Your task to perform on an android device: turn on location history Image 0: 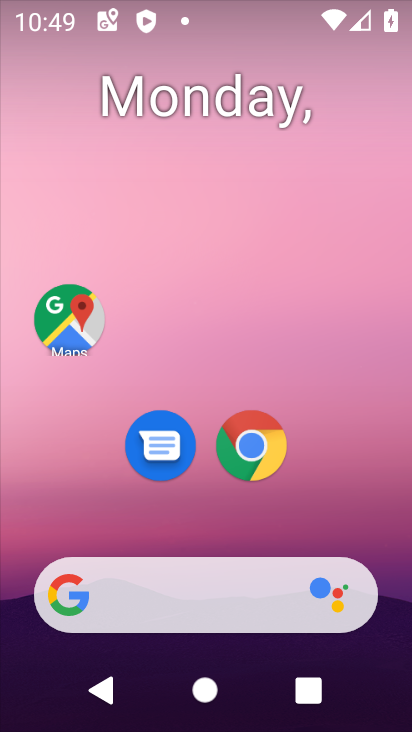
Step 0: drag from (183, 529) to (267, 91)
Your task to perform on an android device: turn on location history Image 1: 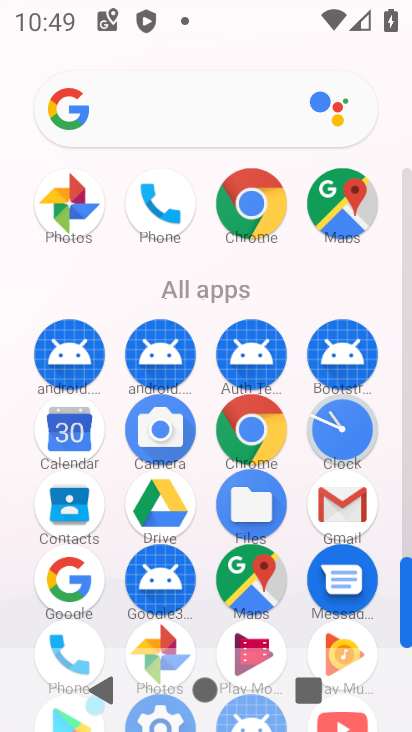
Step 1: drag from (214, 617) to (307, 165)
Your task to perform on an android device: turn on location history Image 2: 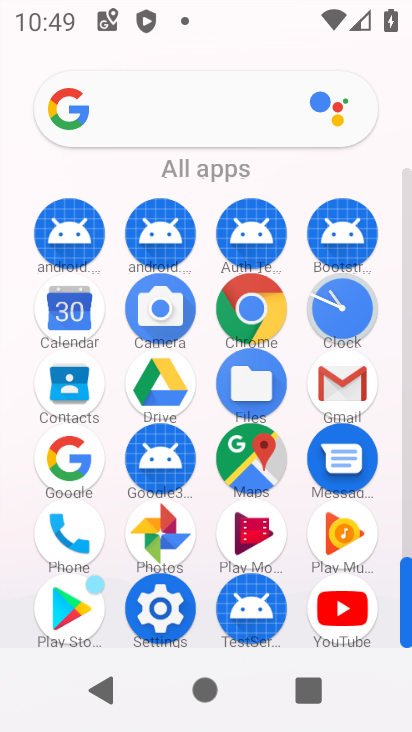
Step 2: click (155, 592)
Your task to perform on an android device: turn on location history Image 3: 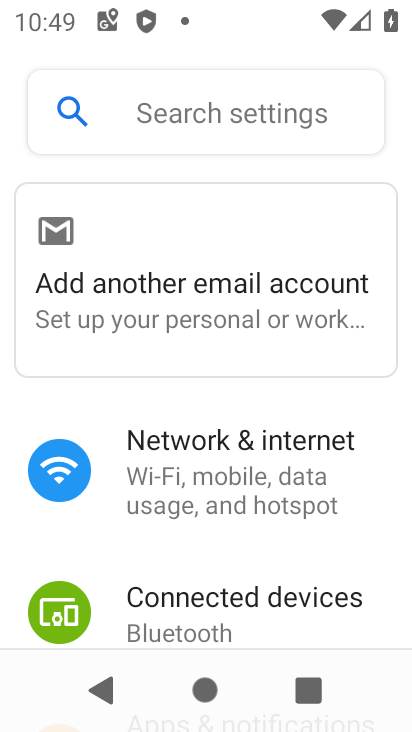
Step 3: drag from (217, 529) to (359, 57)
Your task to perform on an android device: turn on location history Image 4: 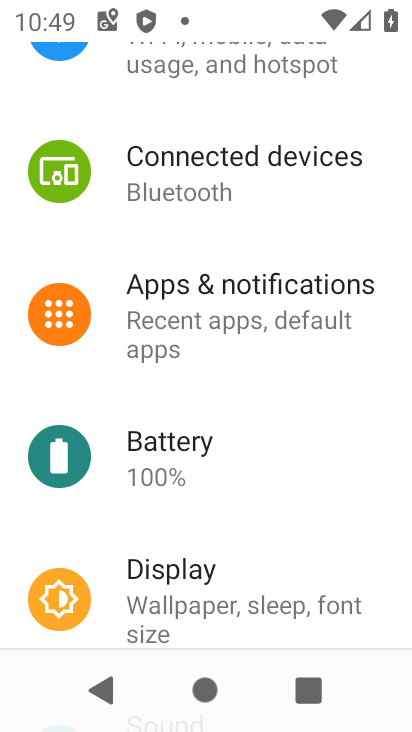
Step 4: drag from (235, 556) to (306, 63)
Your task to perform on an android device: turn on location history Image 5: 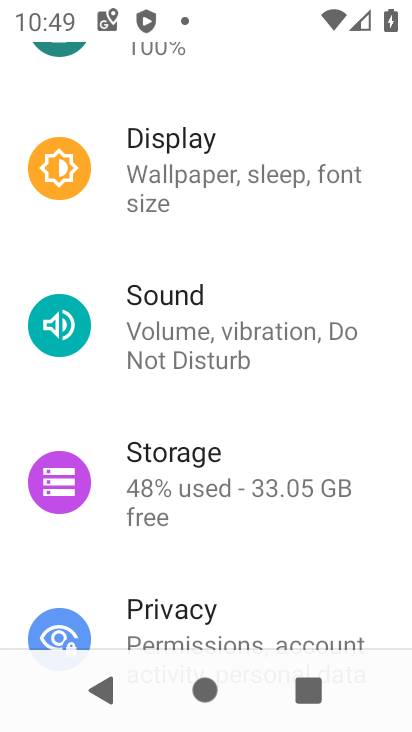
Step 5: drag from (193, 582) to (265, 140)
Your task to perform on an android device: turn on location history Image 6: 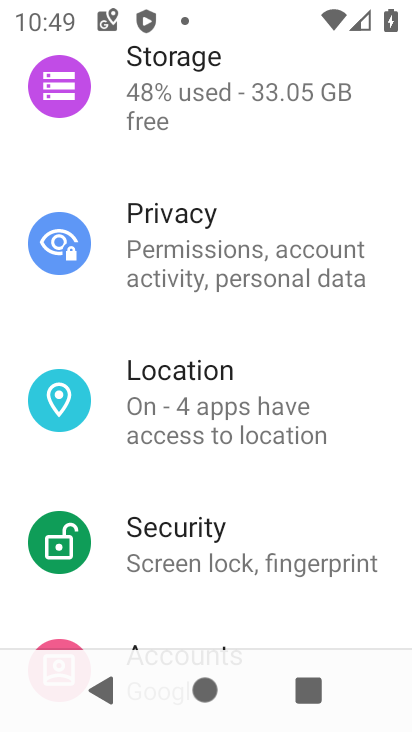
Step 6: click (197, 398)
Your task to perform on an android device: turn on location history Image 7: 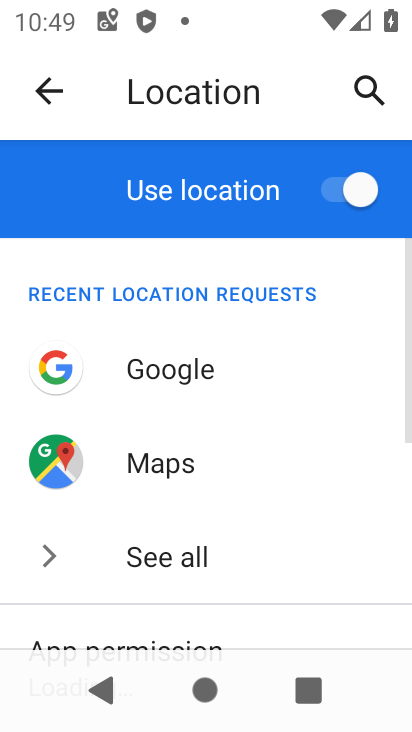
Step 7: drag from (210, 532) to (341, 18)
Your task to perform on an android device: turn on location history Image 8: 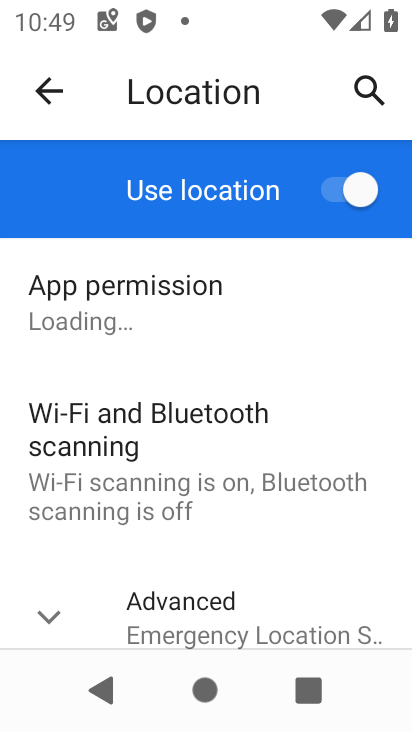
Step 8: drag from (186, 526) to (323, 56)
Your task to perform on an android device: turn on location history Image 9: 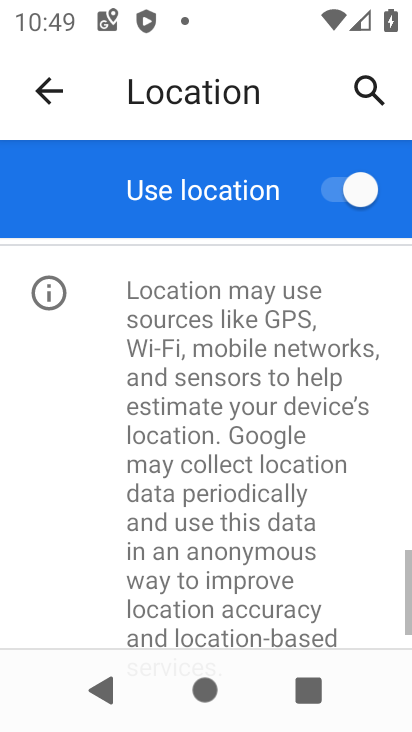
Step 9: drag from (194, 300) to (195, 619)
Your task to perform on an android device: turn on location history Image 10: 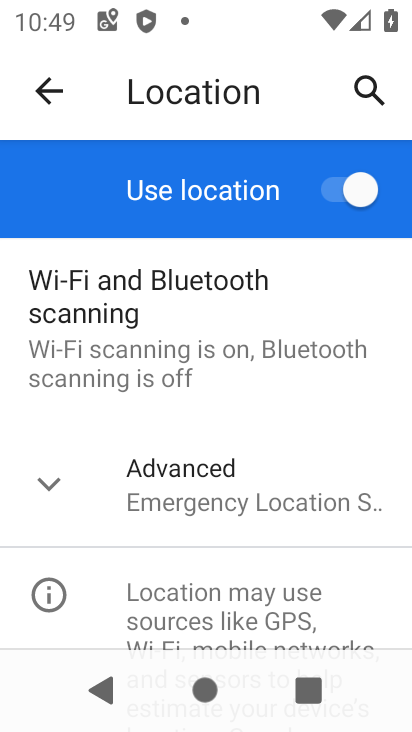
Step 10: click (182, 498)
Your task to perform on an android device: turn on location history Image 11: 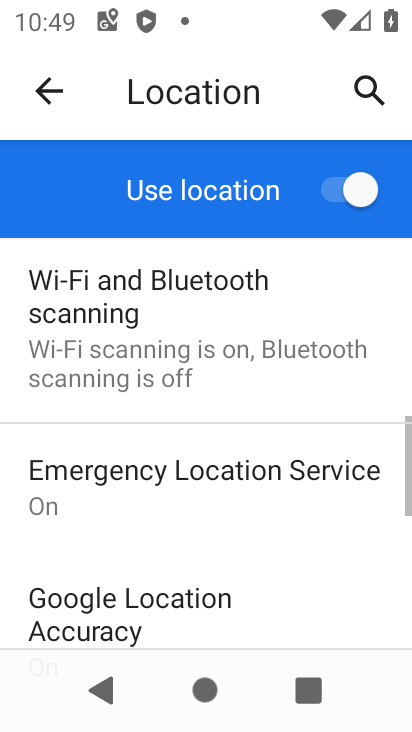
Step 11: drag from (216, 605) to (319, 249)
Your task to perform on an android device: turn on location history Image 12: 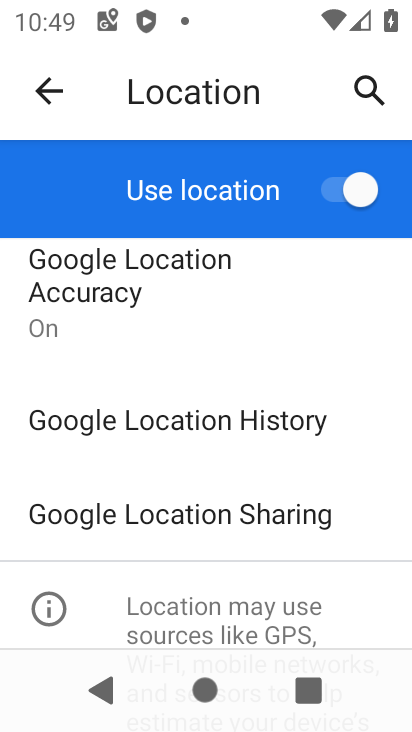
Step 12: click (222, 422)
Your task to perform on an android device: turn on location history Image 13: 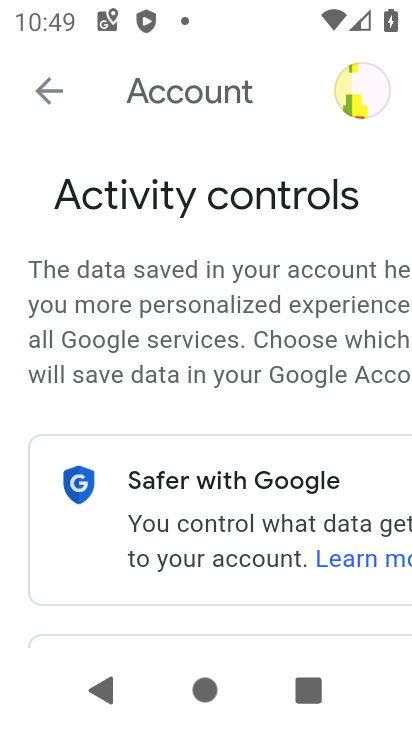
Step 13: drag from (219, 479) to (249, 65)
Your task to perform on an android device: turn on location history Image 14: 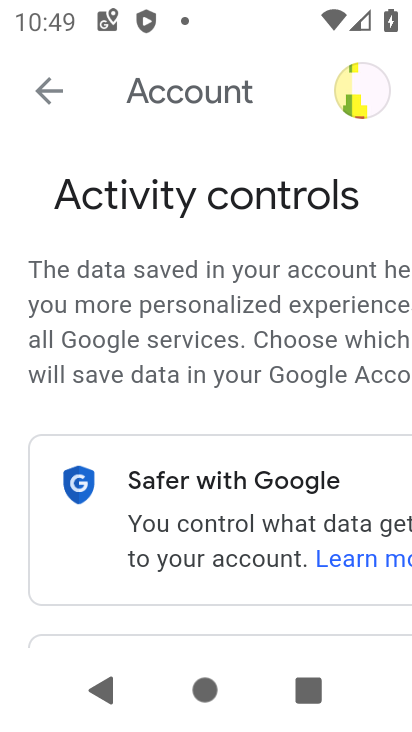
Step 14: drag from (287, 531) to (195, 151)
Your task to perform on an android device: turn on location history Image 15: 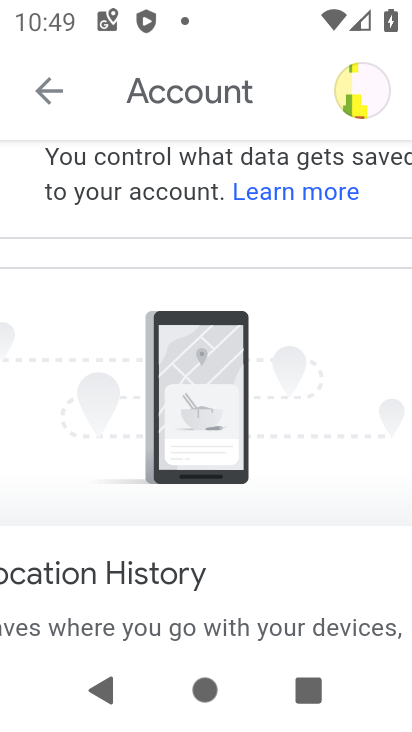
Step 15: drag from (209, 594) to (349, 152)
Your task to perform on an android device: turn on location history Image 16: 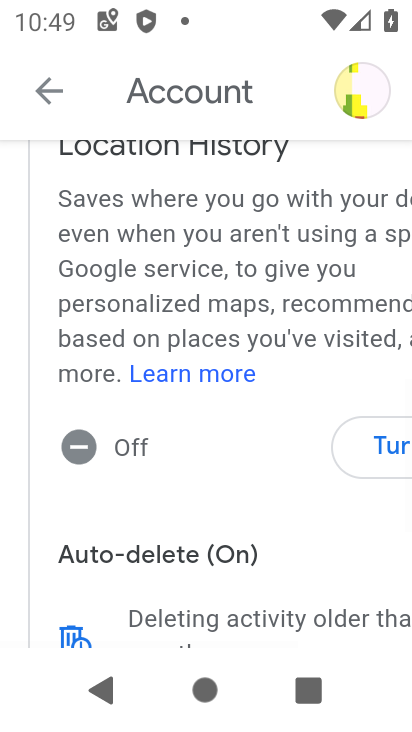
Step 16: drag from (294, 495) to (213, 260)
Your task to perform on an android device: turn on location history Image 17: 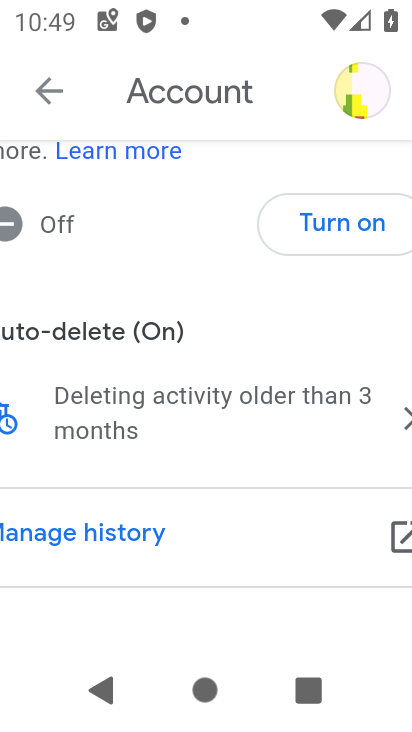
Step 17: click (324, 224)
Your task to perform on an android device: turn on location history Image 18: 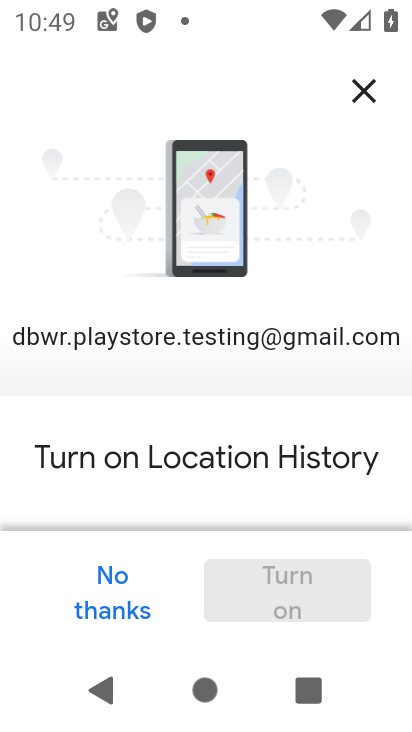
Step 18: drag from (252, 431) to (323, 66)
Your task to perform on an android device: turn on location history Image 19: 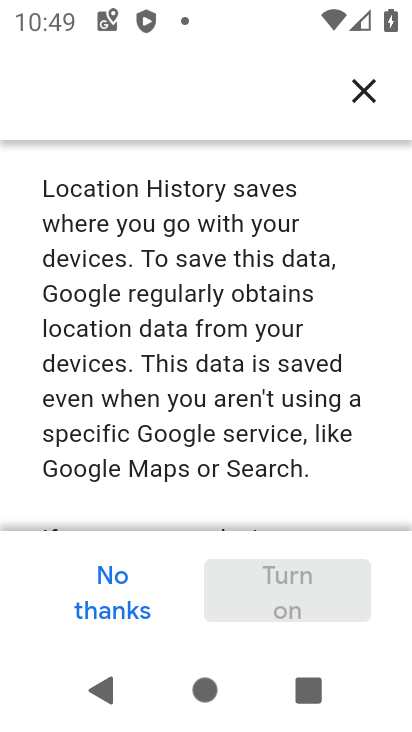
Step 19: drag from (235, 485) to (337, 78)
Your task to perform on an android device: turn on location history Image 20: 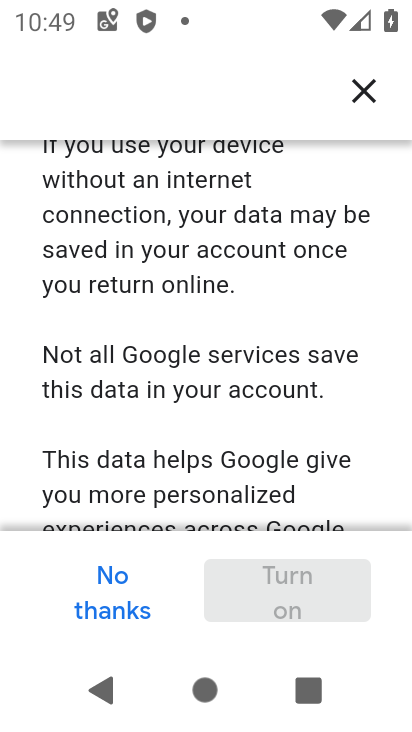
Step 20: drag from (271, 473) to (317, 78)
Your task to perform on an android device: turn on location history Image 21: 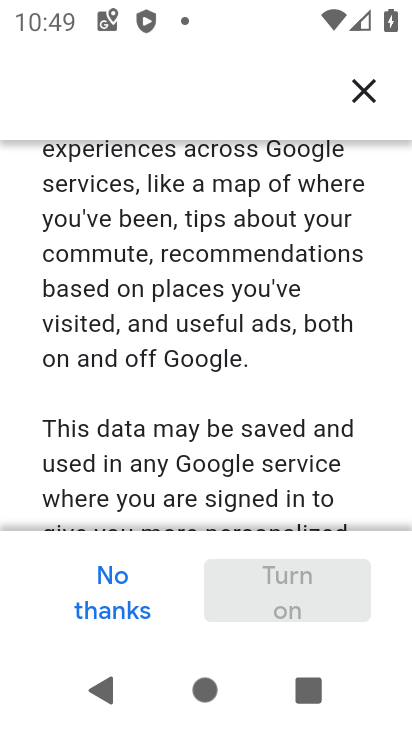
Step 21: drag from (219, 479) to (292, 93)
Your task to perform on an android device: turn on location history Image 22: 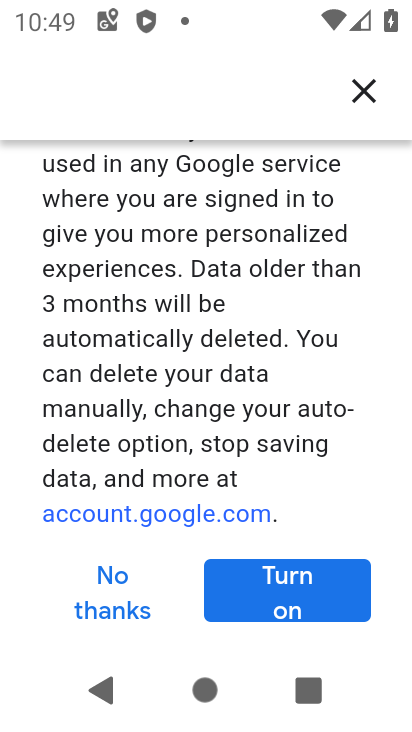
Step 22: drag from (302, 458) to (341, 87)
Your task to perform on an android device: turn on location history Image 23: 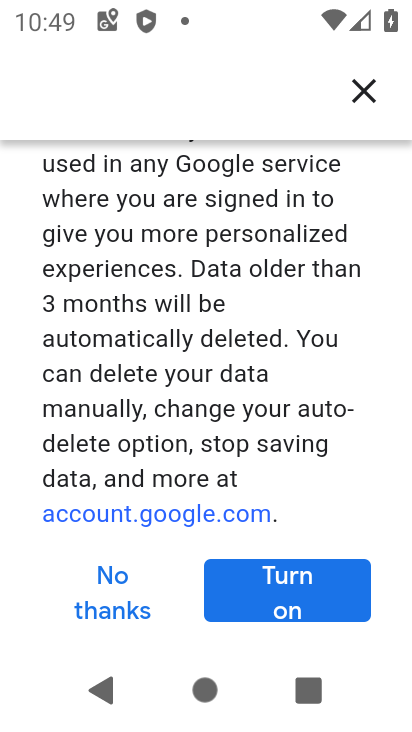
Step 23: click (271, 586)
Your task to perform on an android device: turn on location history Image 24: 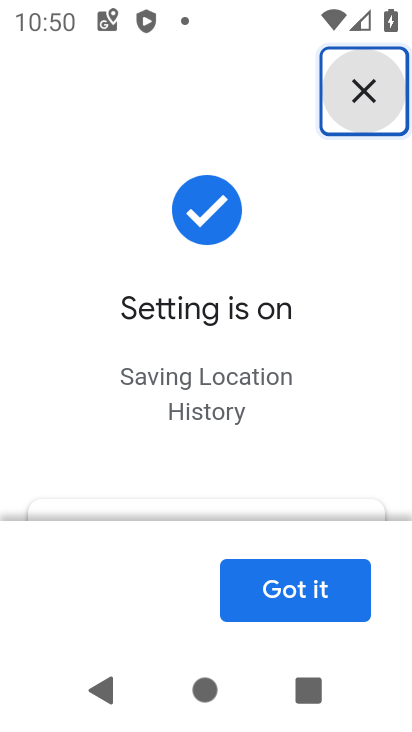
Step 24: task complete